Your task to perform on an android device: Open my contact list Image 0: 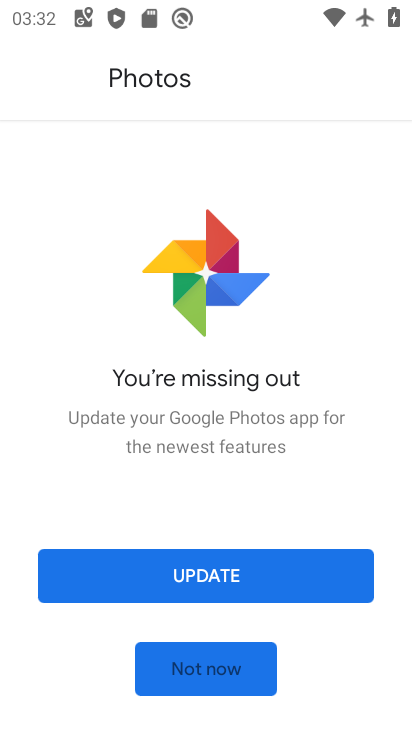
Step 0: press home button
Your task to perform on an android device: Open my contact list Image 1: 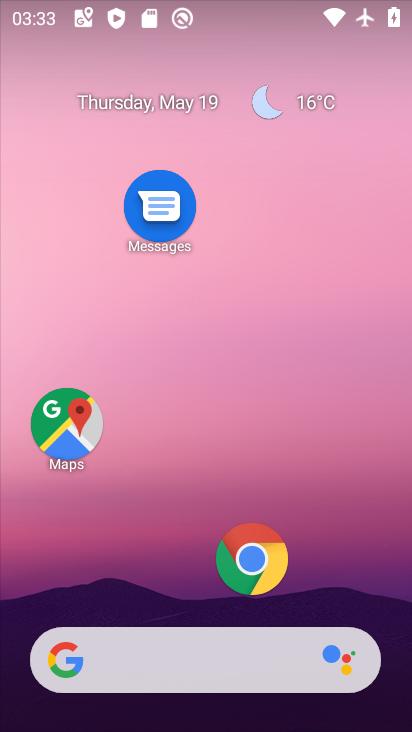
Step 1: drag from (196, 615) to (214, 227)
Your task to perform on an android device: Open my contact list Image 2: 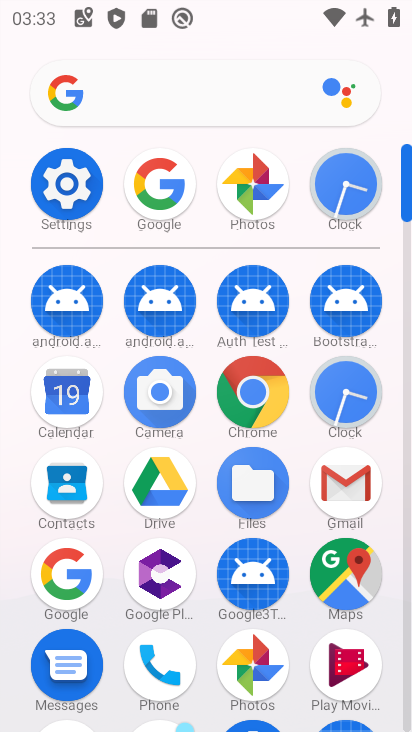
Step 2: click (65, 484)
Your task to perform on an android device: Open my contact list Image 3: 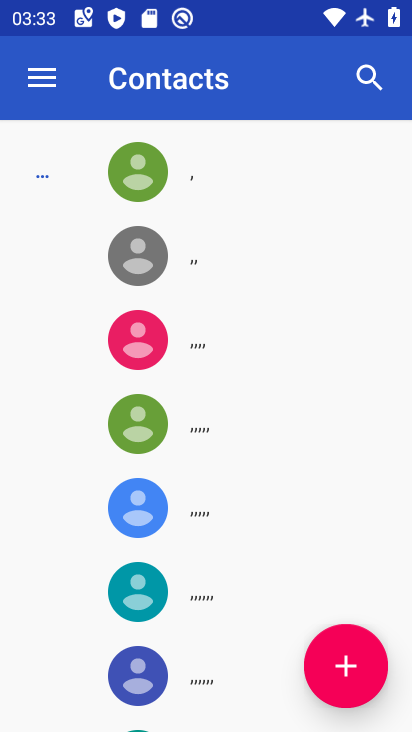
Step 3: task complete